Your task to perform on an android device: search for starred emails in the gmail app Image 0: 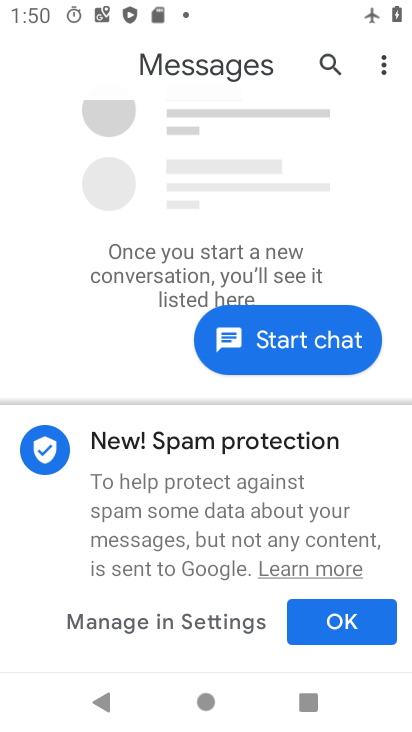
Step 0: press home button
Your task to perform on an android device: search for starred emails in the gmail app Image 1: 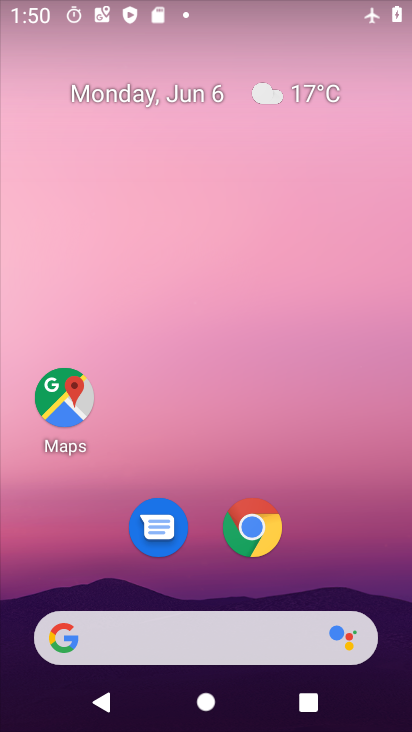
Step 1: drag from (231, 729) to (241, 125)
Your task to perform on an android device: search for starred emails in the gmail app Image 2: 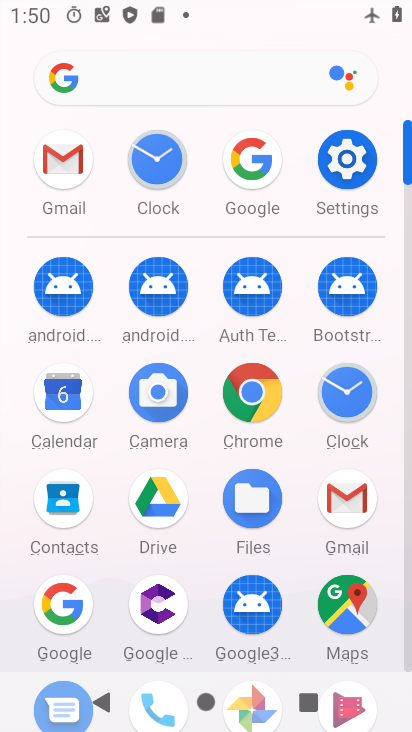
Step 2: click (354, 495)
Your task to perform on an android device: search for starred emails in the gmail app Image 3: 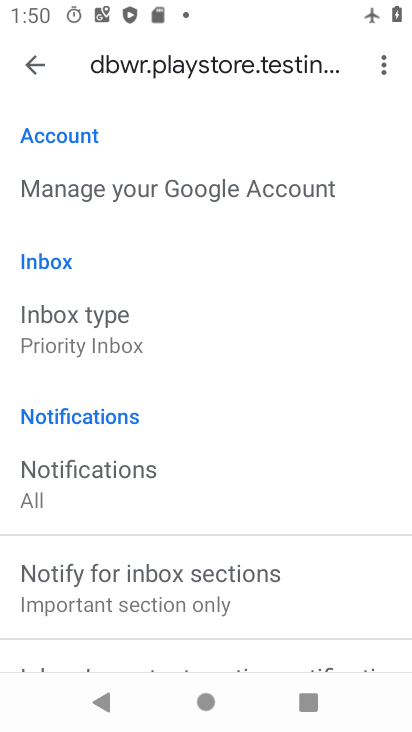
Step 3: click (32, 57)
Your task to perform on an android device: search for starred emails in the gmail app Image 4: 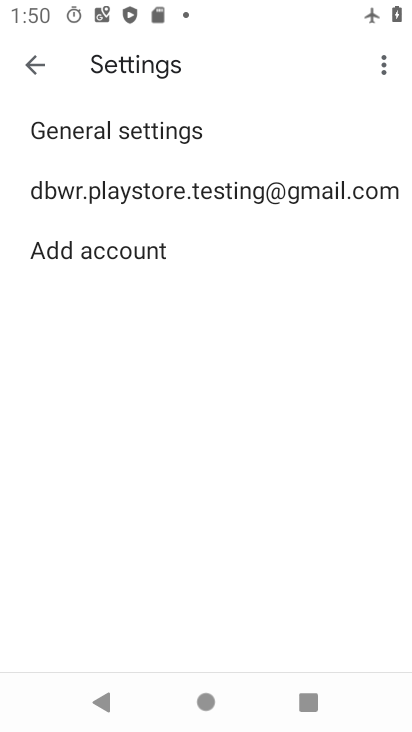
Step 4: click (36, 64)
Your task to perform on an android device: search for starred emails in the gmail app Image 5: 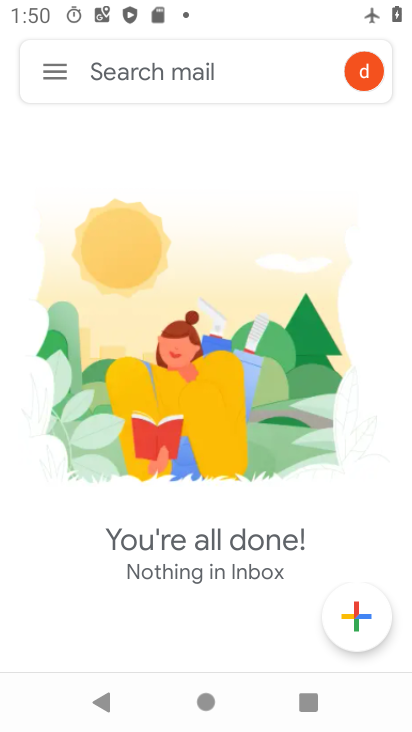
Step 5: click (60, 70)
Your task to perform on an android device: search for starred emails in the gmail app Image 6: 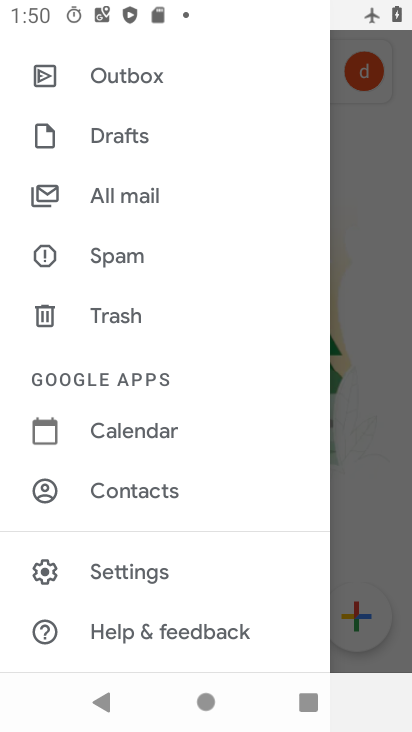
Step 6: drag from (168, 115) to (170, 394)
Your task to perform on an android device: search for starred emails in the gmail app Image 7: 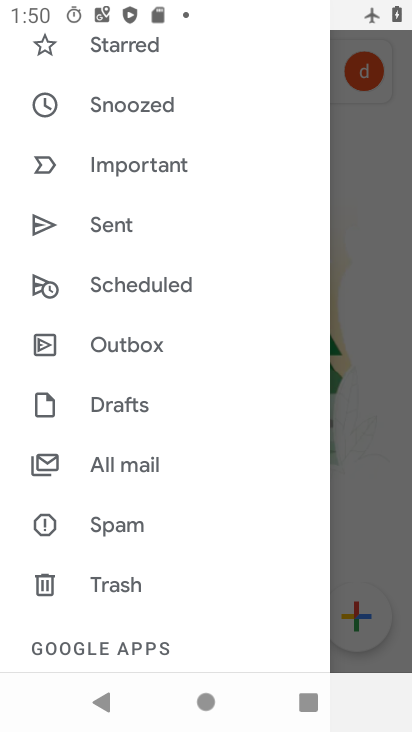
Step 7: click (100, 44)
Your task to perform on an android device: search for starred emails in the gmail app Image 8: 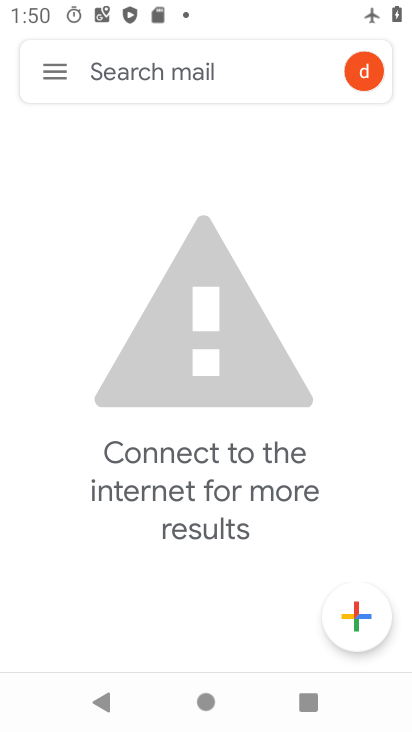
Step 8: task complete